Your task to perform on an android device: Show me recent news Image 0: 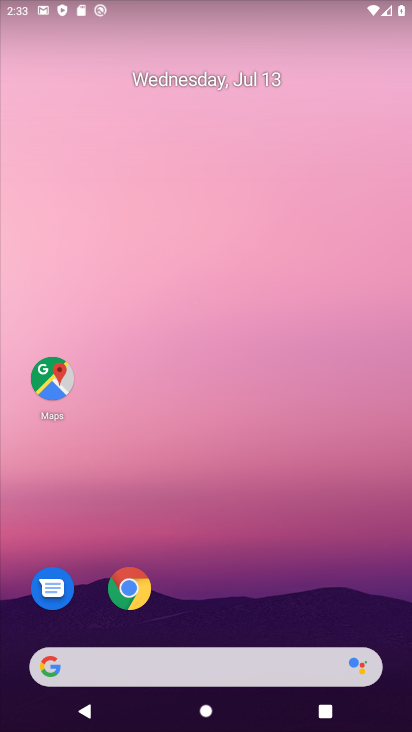
Step 0: press back button
Your task to perform on an android device: Show me recent news Image 1: 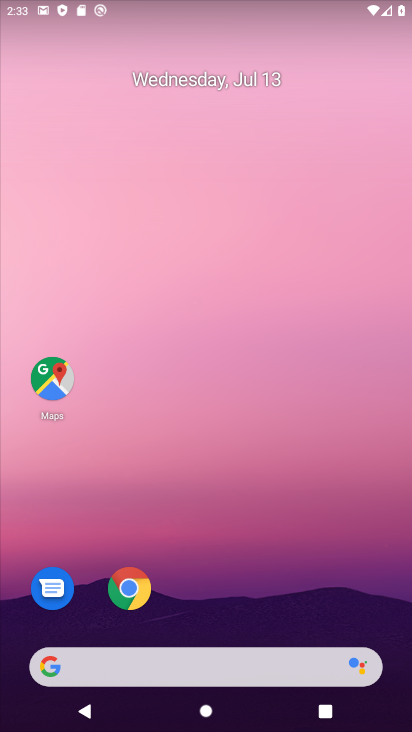
Step 1: press home button
Your task to perform on an android device: Show me recent news Image 2: 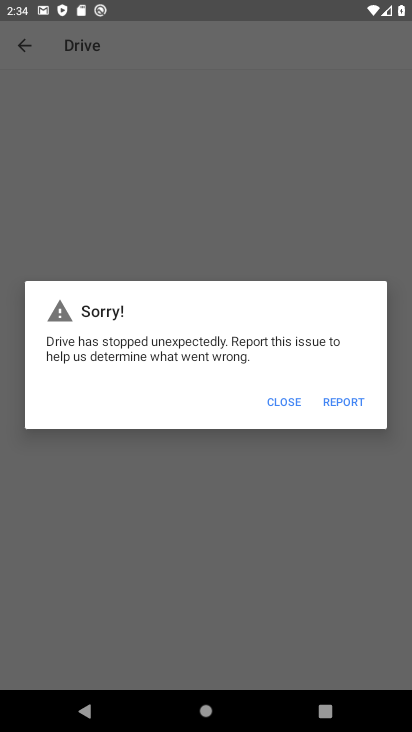
Step 2: drag from (119, 276) to (171, 330)
Your task to perform on an android device: Show me recent news Image 3: 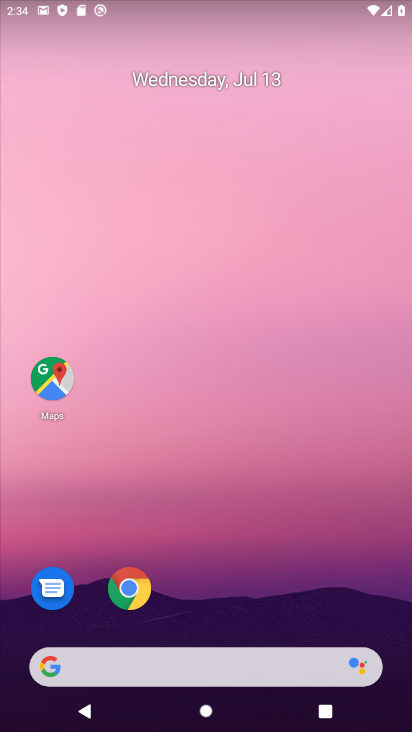
Step 3: click (146, 187)
Your task to perform on an android device: Show me recent news Image 4: 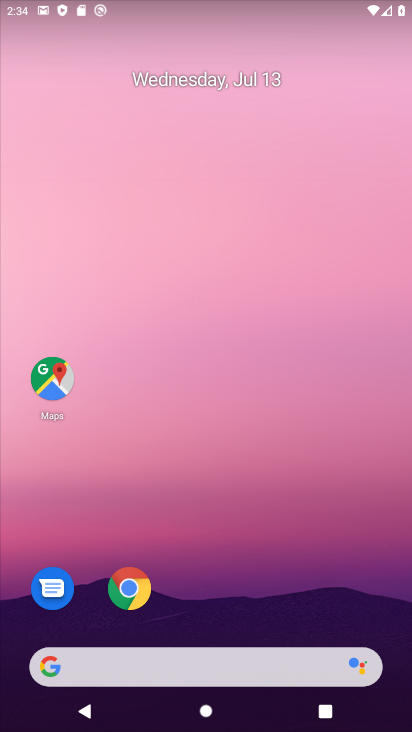
Step 4: drag from (301, 576) to (164, 247)
Your task to perform on an android device: Show me recent news Image 5: 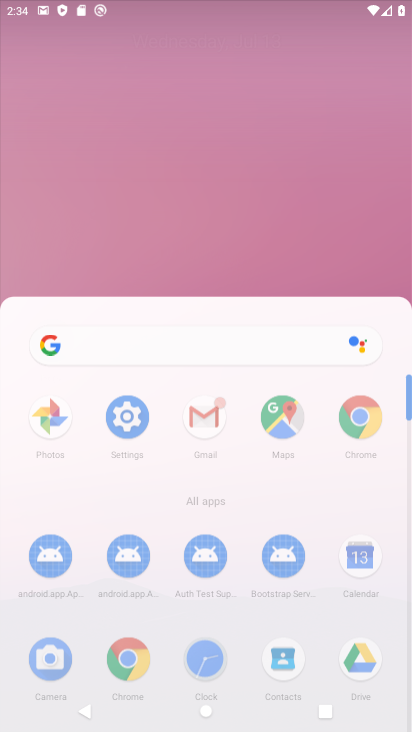
Step 5: drag from (312, 567) to (195, 219)
Your task to perform on an android device: Show me recent news Image 6: 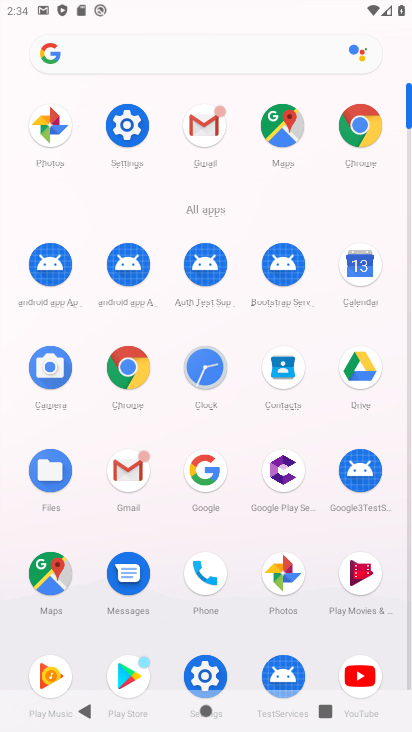
Step 6: drag from (310, 509) to (253, 341)
Your task to perform on an android device: Show me recent news Image 7: 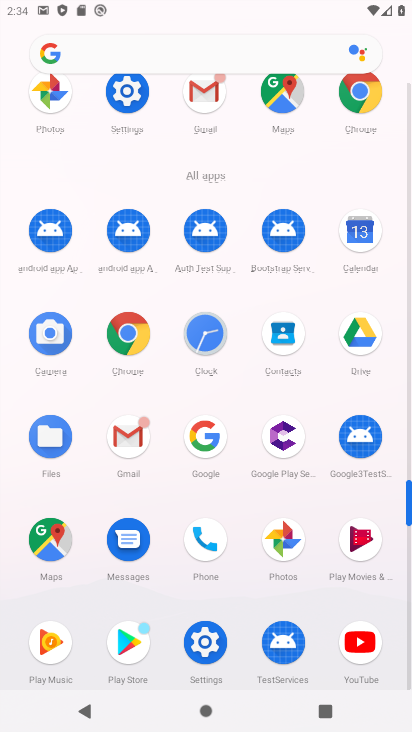
Step 7: click (126, 348)
Your task to perform on an android device: Show me recent news Image 8: 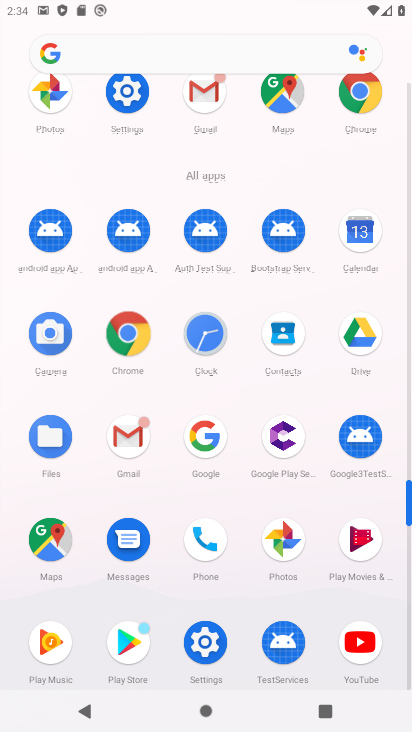
Step 8: click (126, 348)
Your task to perform on an android device: Show me recent news Image 9: 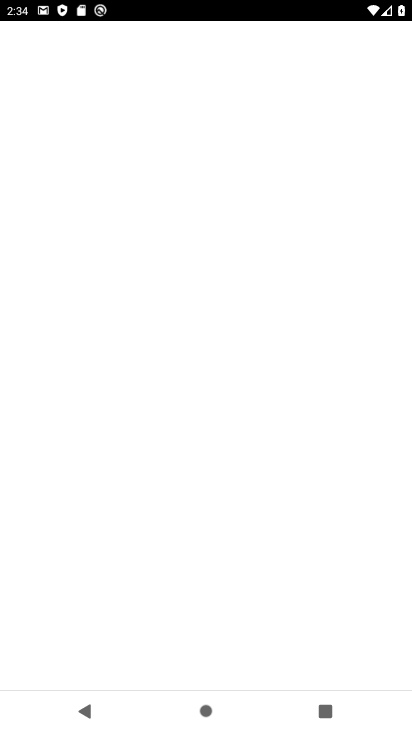
Step 9: click (124, 349)
Your task to perform on an android device: Show me recent news Image 10: 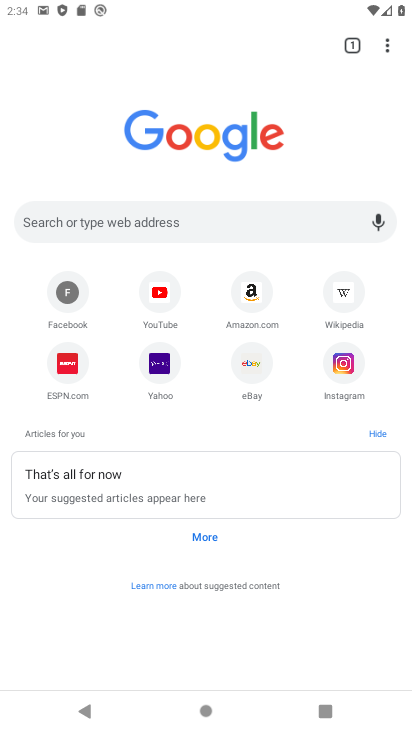
Step 10: click (73, 217)
Your task to perform on an android device: Show me recent news Image 11: 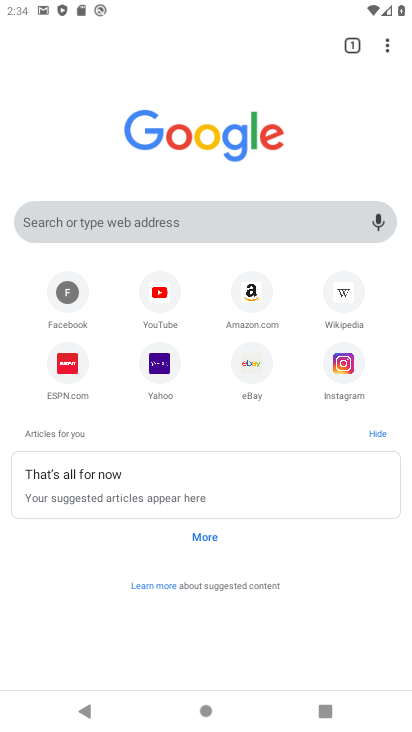
Step 11: click (72, 214)
Your task to perform on an android device: Show me recent news Image 12: 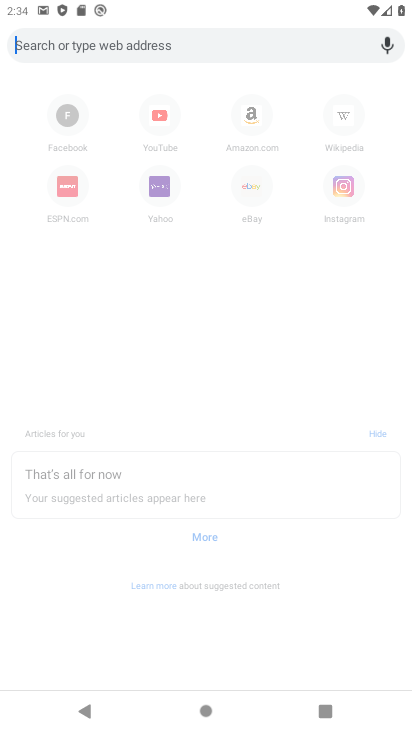
Step 12: click (72, 214)
Your task to perform on an android device: Show me recent news Image 13: 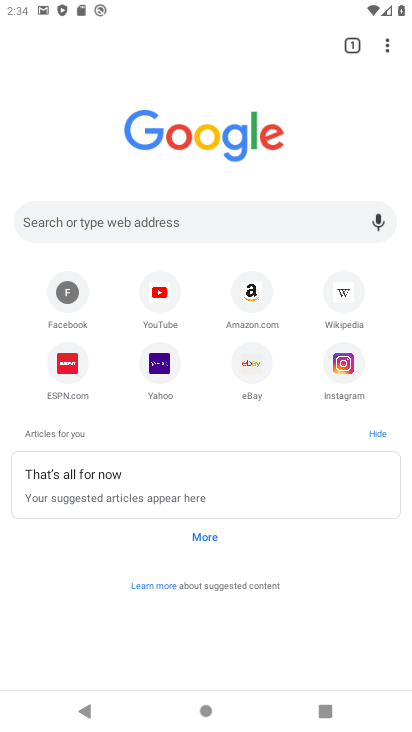
Step 13: type "recent news"
Your task to perform on an android device: Show me recent news Image 14: 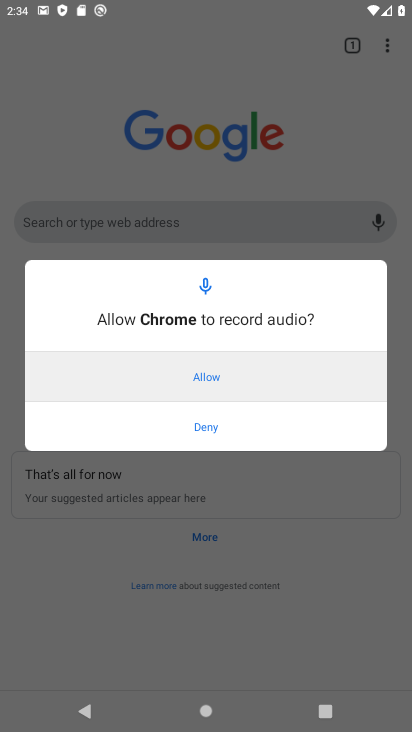
Step 14: click (223, 366)
Your task to perform on an android device: Show me recent news Image 15: 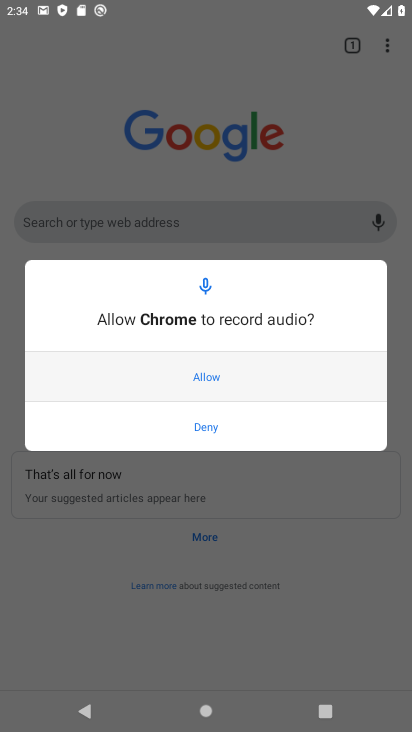
Step 15: click (219, 369)
Your task to perform on an android device: Show me recent news Image 16: 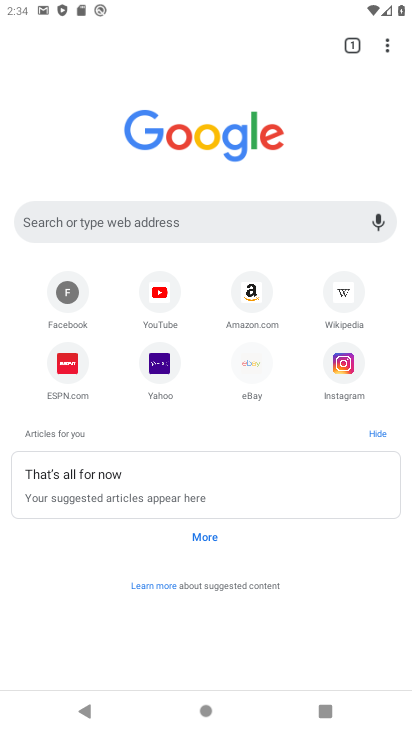
Step 16: click (202, 377)
Your task to perform on an android device: Show me recent news Image 17: 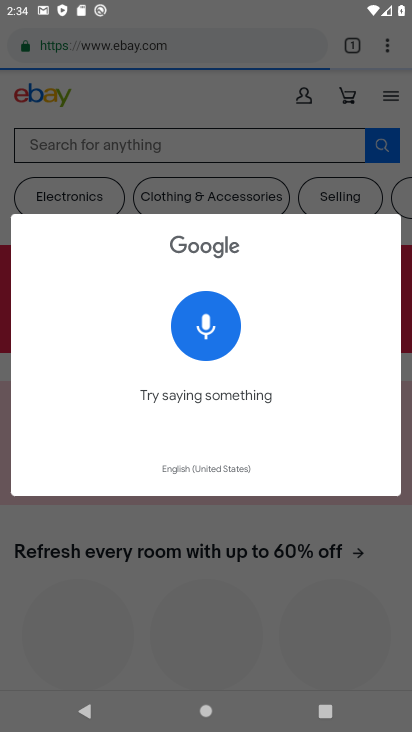
Step 17: task complete